Your task to perform on an android device: Open Yahoo.com Image 0: 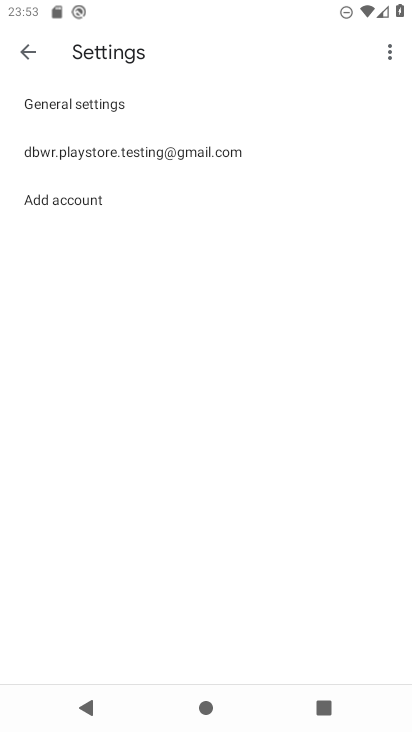
Step 0: press home button
Your task to perform on an android device: Open Yahoo.com Image 1: 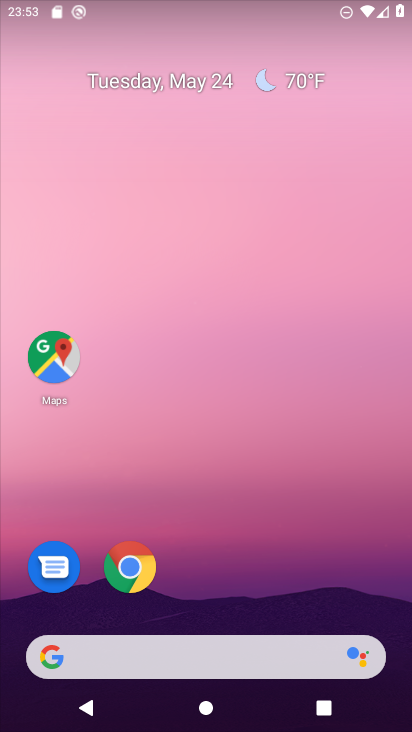
Step 1: click (135, 559)
Your task to perform on an android device: Open Yahoo.com Image 2: 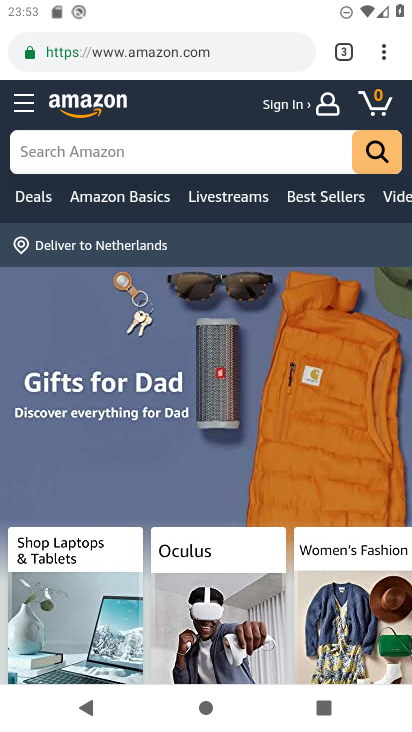
Step 2: click (392, 47)
Your task to perform on an android device: Open Yahoo.com Image 3: 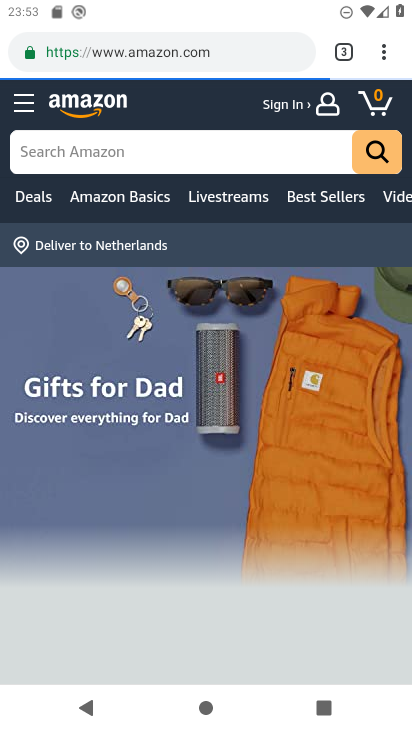
Step 3: click (338, 50)
Your task to perform on an android device: Open Yahoo.com Image 4: 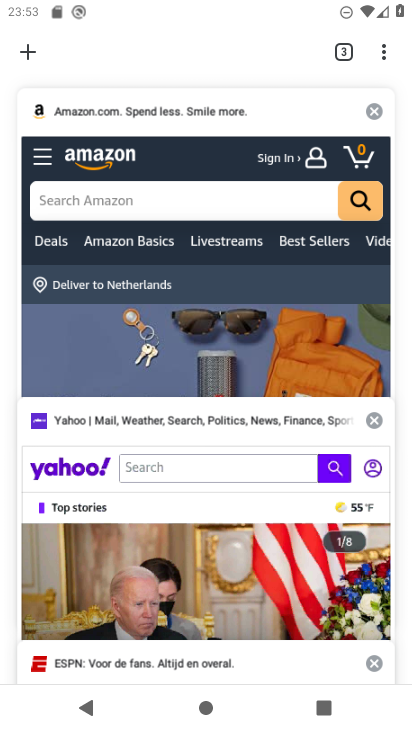
Step 4: click (100, 451)
Your task to perform on an android device: Open Yahoo.com Image 5: 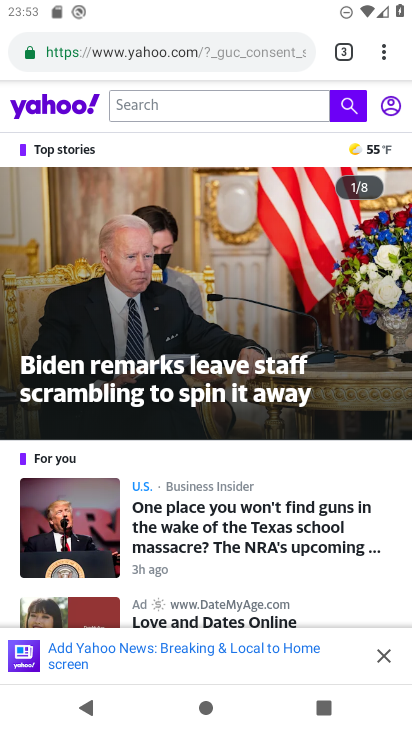
Step 5: task complete